Your task to perform on an android device: toggle notifications settings in the gmail app Image 0: 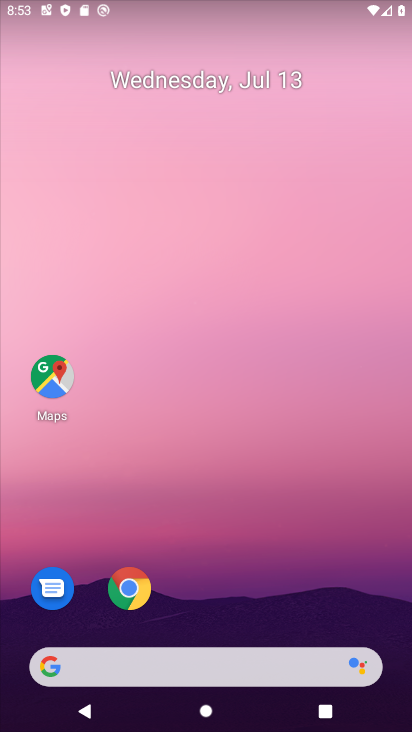
Step 0: drag from (223, 563) to (213, 111)
Your task to perform on an android device: toggle notifications settings in the gmail app Image 1: 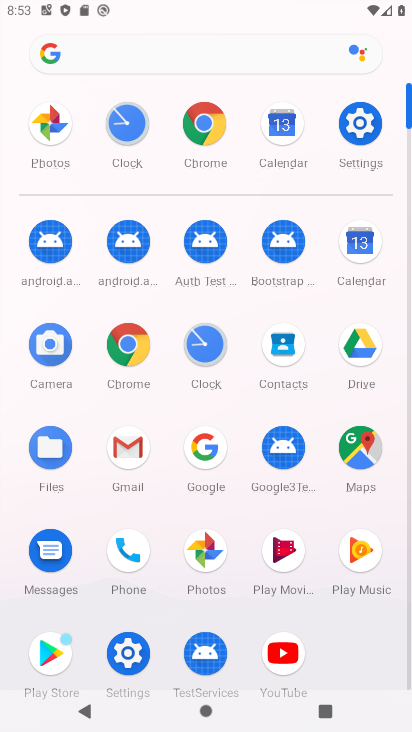
Step 1: click (133, 438)
Your task to perform on an android device: toggle notifications settings in the gmail app Image 2: 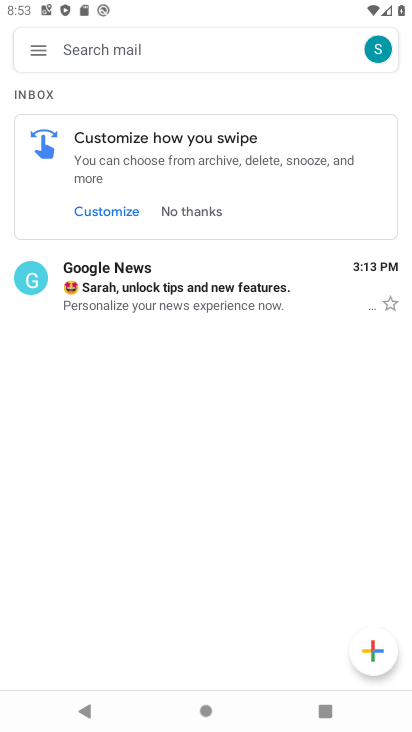
Step 2: click (34, 51)
Your task to perform on an android device: toggle notifications settings in the gmail app Image 3: 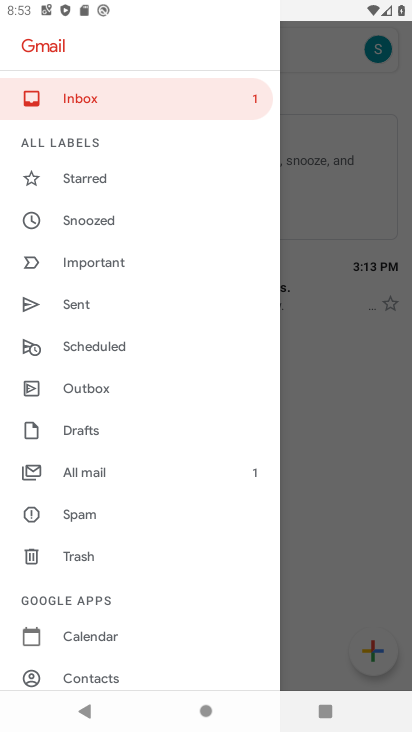
Step 3: drag from (143, 578) to (144, 188)
Your task to perform on an android device: toggle notifications settings in the gmail app Image 4: 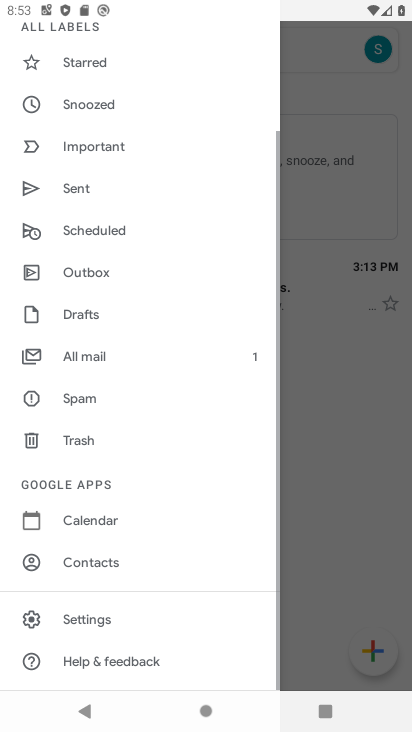
Step 4: click (90, 610)
Your task to perform on an android device: toggle notifications settings in the gmail app Image 5: 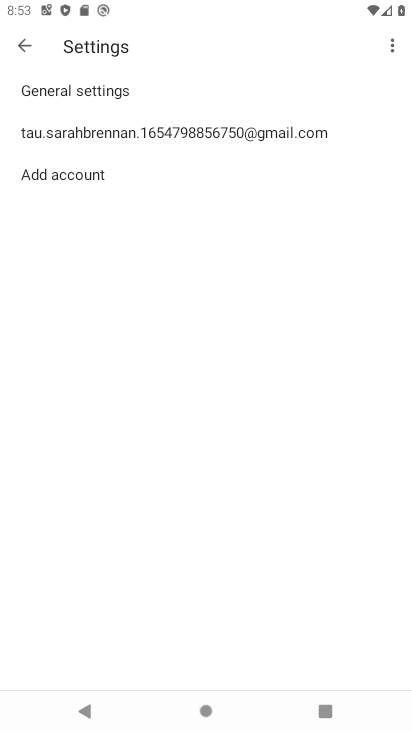
Step 5: click (66, 80)
Your task to perform on an android device: toggle notifications settings in the gmail app Image 6: 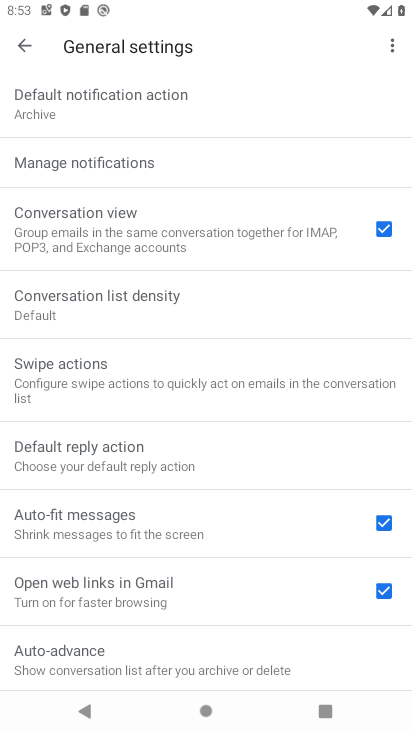
Step 6: click (24, 35)
Your task to perform on an android device: toggle notifications settings in the gmail app Image 7: 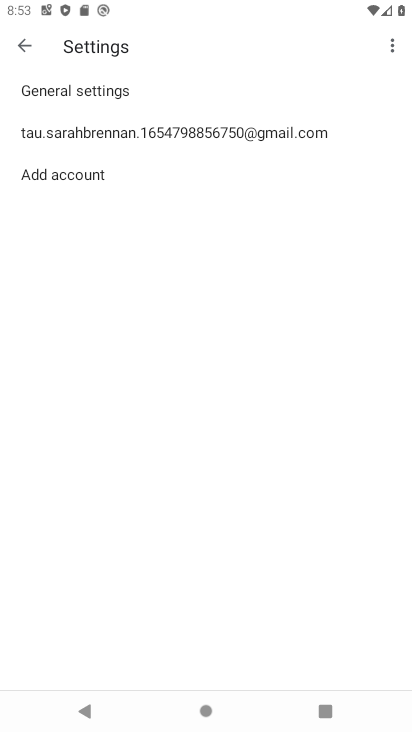
Step 7: click (119, 140)
Your task to perform on an android device: toggle notifications settings in the gmail app Image 8: 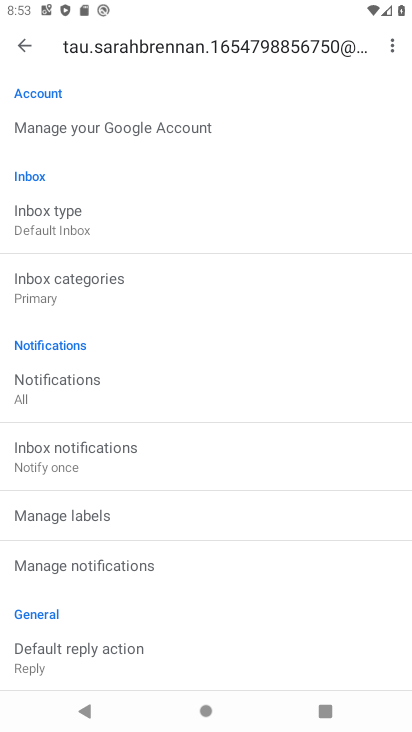
Step 8: click (78, 376)
Your task to perform on an android device: toggle notifications settings in the gmail app Image 9: 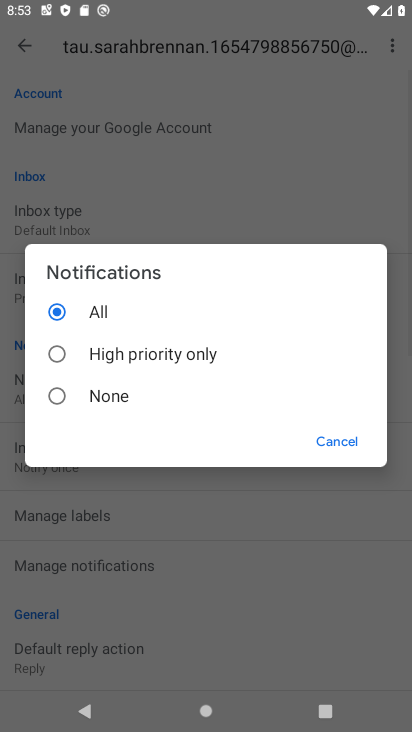
Step 9: click (98, 381)
Your task to perform on an android device: toggle notifications settings in the gmail app Image 10: 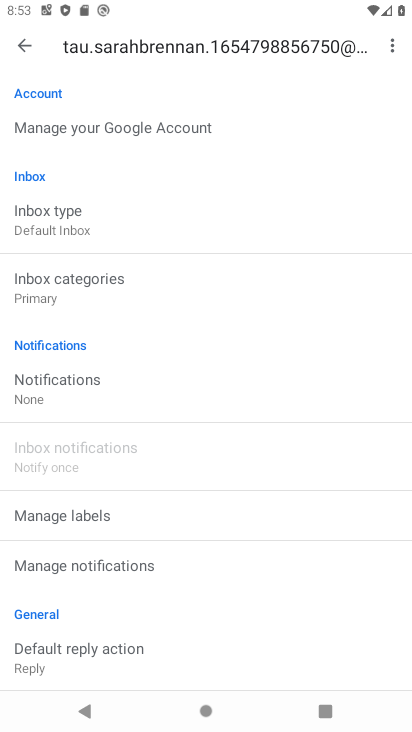
Step 10: task complete